Your task to perform on an android device: What is the news today? Image 0: 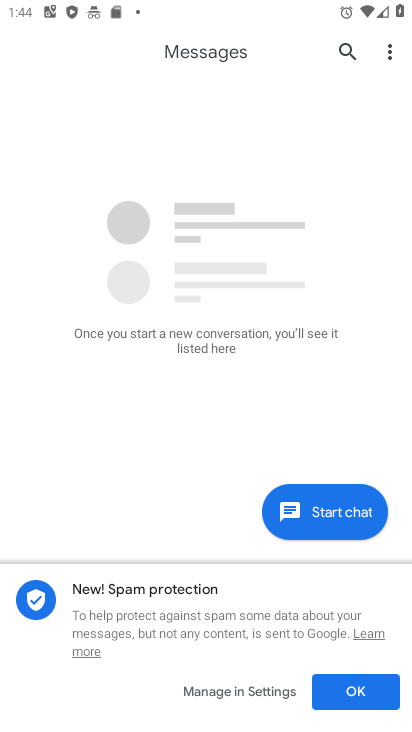
Step 0: press home button
Your task to perform on an android device: What is the news today? Image 1: 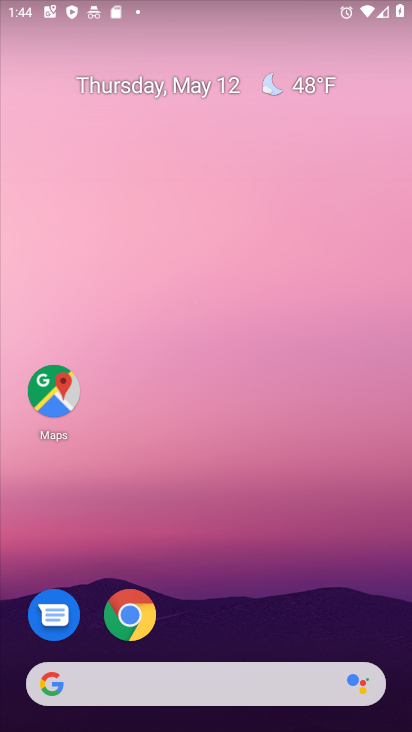
Step 1: drag from (267, 628) to (343, 15)
Your task to perform on an android device: What is the news today? Image 2: 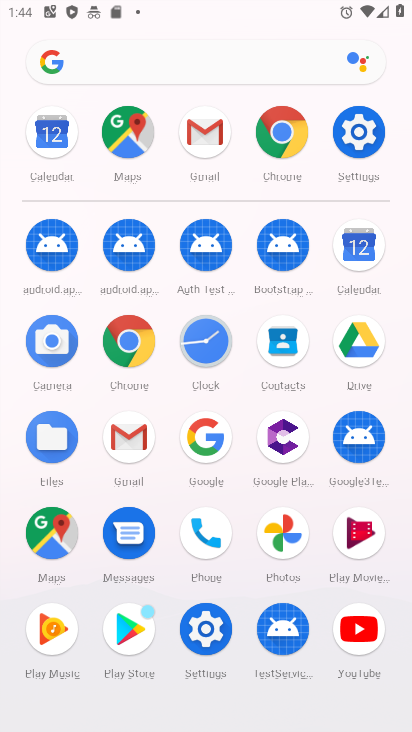
Step 2: click (137, 353)
Your task to perform on an android device: What is the news today? Image 3: 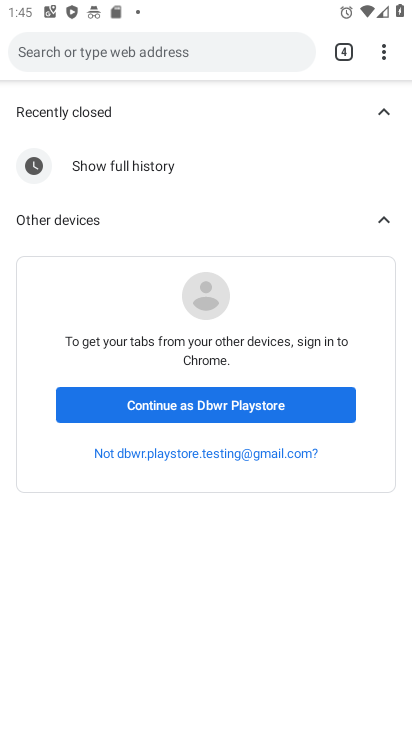
Step 3: press home button
Your task to perform on an android device: What is the news today? Image 4: 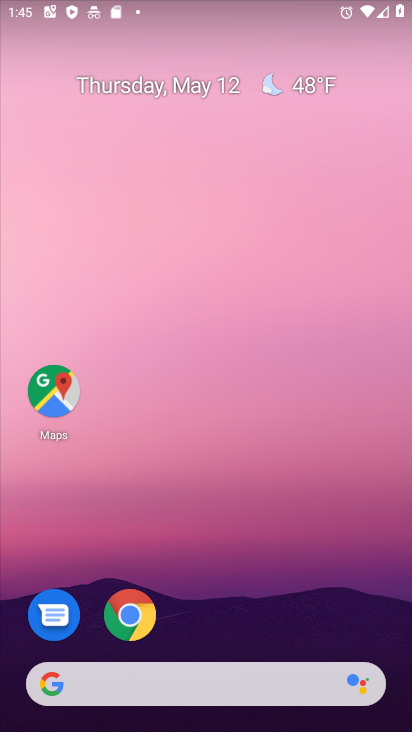
Step 4: drag from (190, 710) to (252, 84)
Your task to perform on an android device: What is the news today? Image 5: 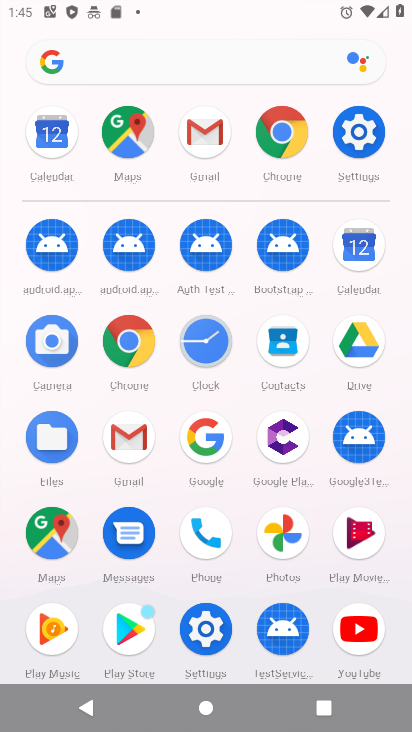
Step 5: click (130, 353)
Your task to perform on an android device: What is the news today? Image 6: 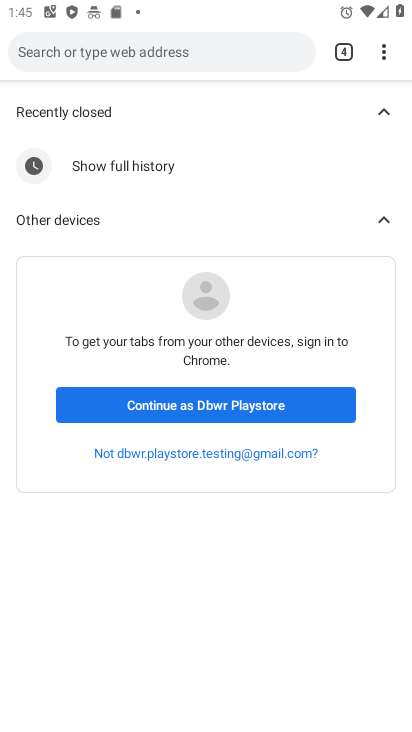
Step 6: press home button
Your task to perform on an android device: What is the news today? Image 7: 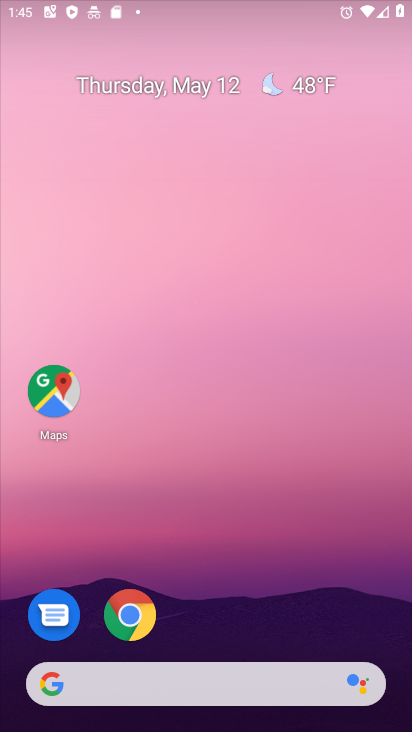
Step 7: drag from (270, 653) to (295, 18)
Your task to perform on an android device: What is the news today? Image 8: 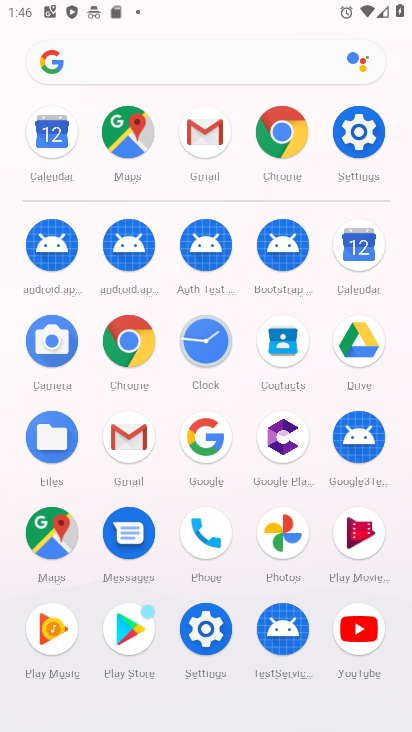
Step 8: click (134, 337)
Your task to perform on an android device: What is the news today? Image 9: 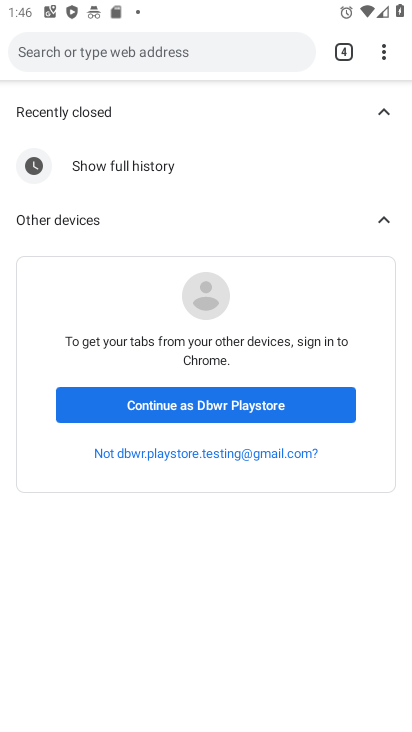
Step 9: click (278, 51)
Your task to perform on an android device: What is the news today? Image 10: 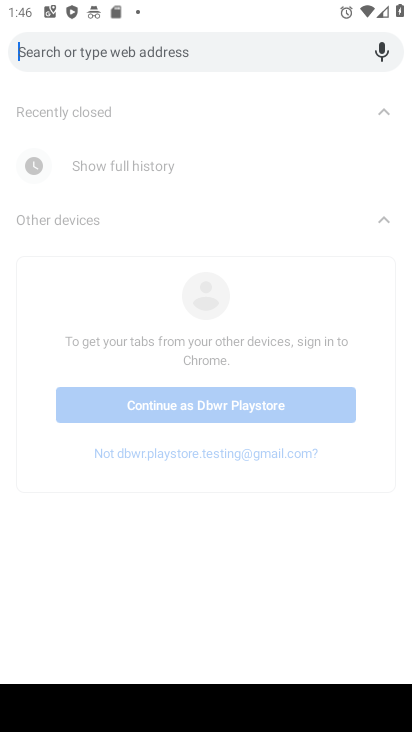
Step 10: type "news today"
Your task to perform on an android device: What is the news today? Image 11: 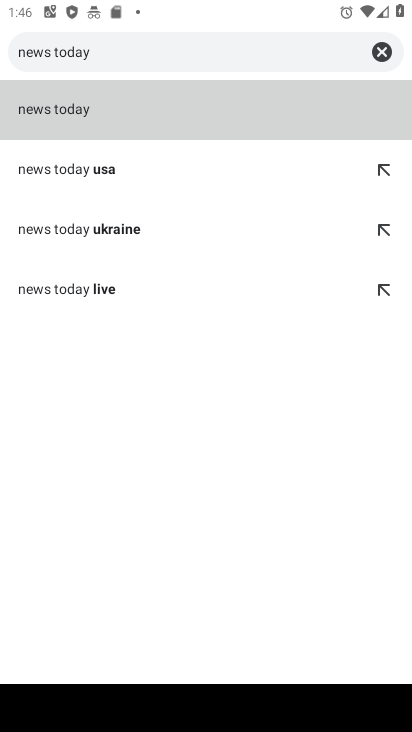
Step 11: click (162, 98)
Your task to perform on an android device: What is the news today? Image 12: 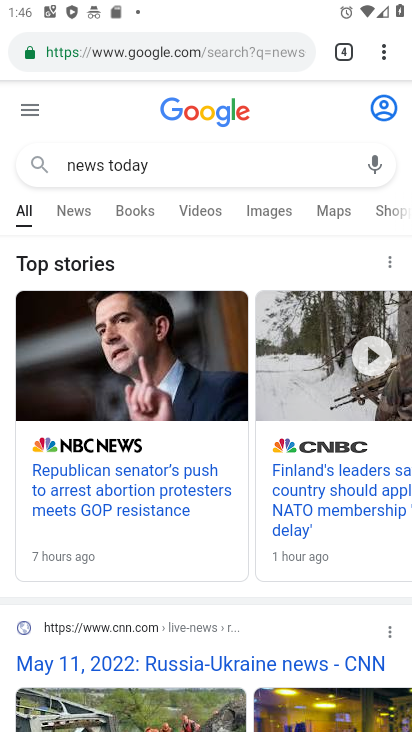
Step 12: task complete